Your task to perform on an android device: Go to notification settings Image 0: 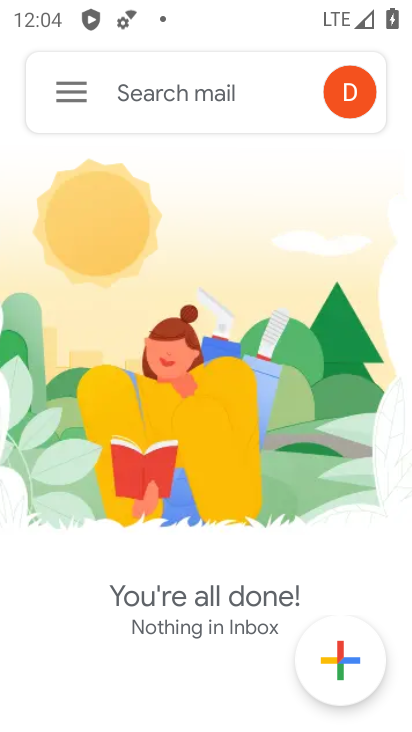
Step 0: press home button
Your task to perform on an android device: Go to notification settings Image 1: 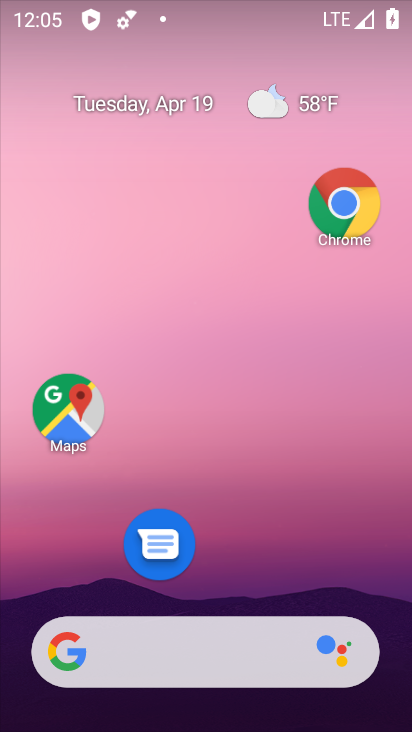
Step 1: drag from (297, 553) to (183, 99)
Your task to perform on an android device: Go to notification settings Image 2: 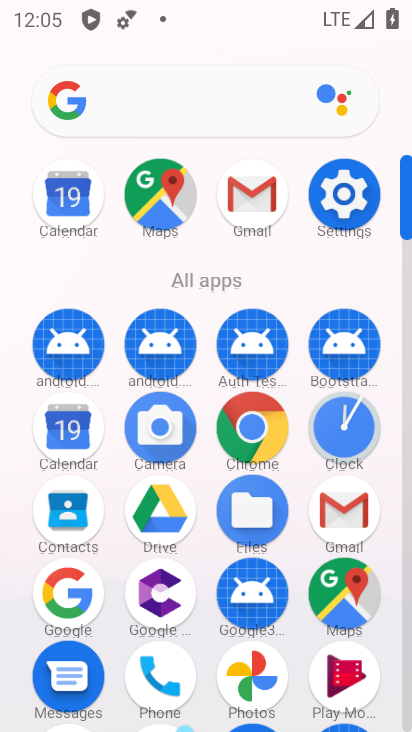
Step 2: click (345, 192)
Your task to perform on an android device: Go to notification settings Image 3: 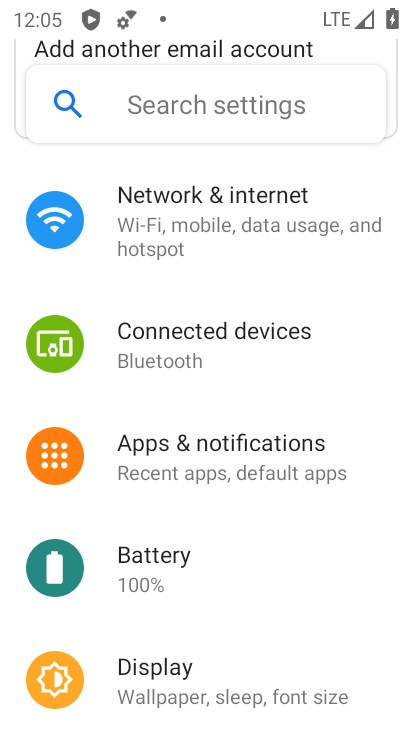
Step 3: click (217, 475)
Your task to perform on an android device: Go to notification settings Image 4: 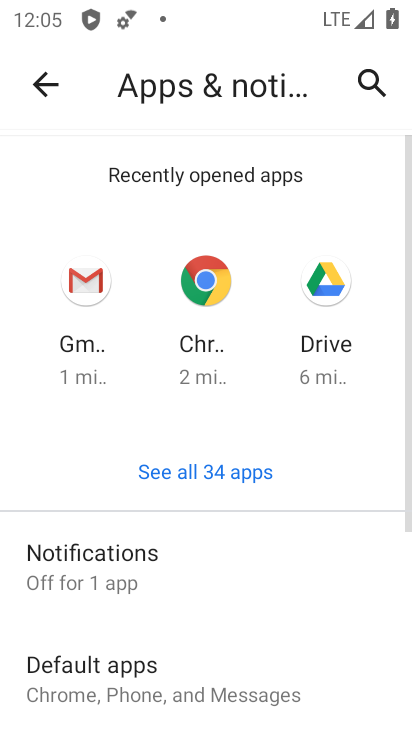
Step 4: task complete